Your task to perform on an android device: Turn off the flashlight Image 0: 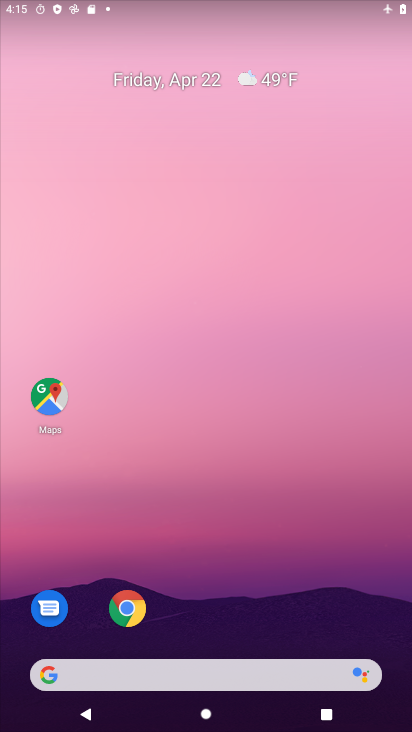
Step 0: drag from (233, 615) to (247, 38)
Your task to perform on an android device: Turn off the flashlight Image 1: 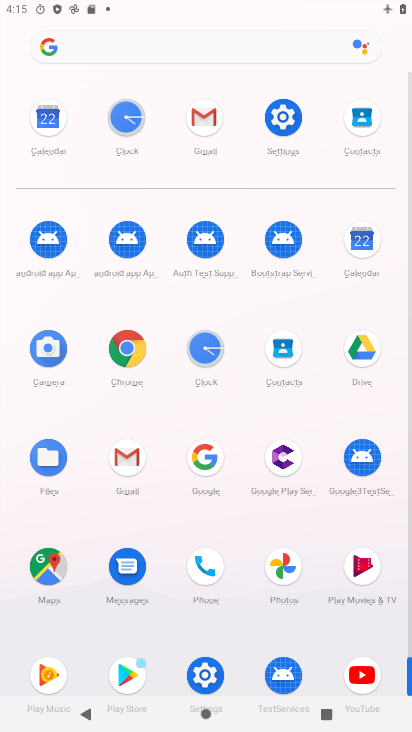
Step 1: click (287, 119)
Your task to perform on an android device: Turn off the flashlight Image 2: 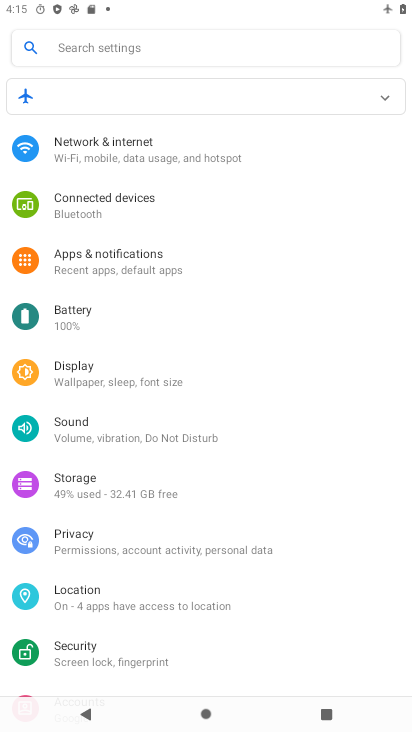
Step 2: click (123, 246)
Your task to perform on an android device: Turn off the flashlight Image 3: 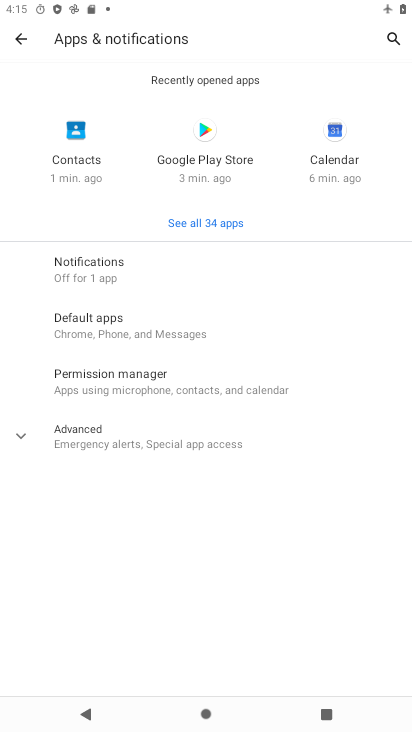
Step 3: click (163, 451)
Your task to perform on an android device: Turn off the flashlight Image 4: 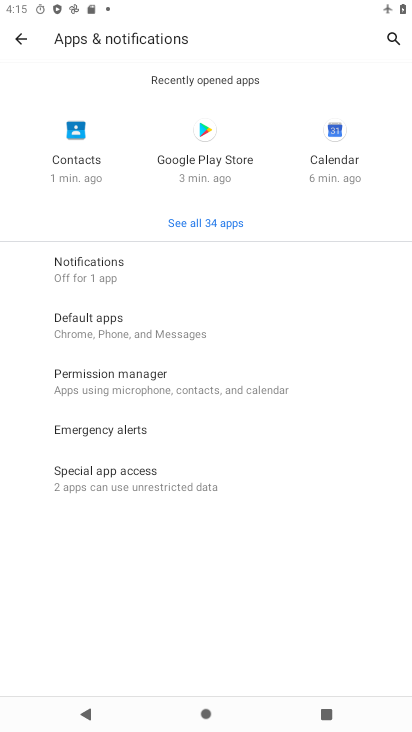
Step 4: task complete